Your task to perform on an android device: find which apps use the phone's location Image 0: 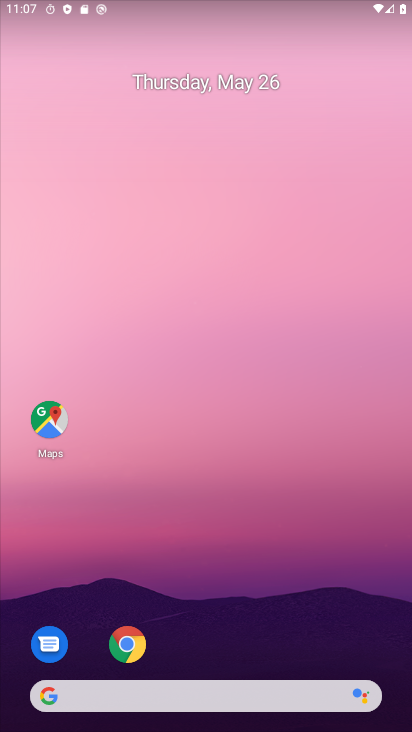
Step 0: drag from (119, 730) to (110, 40)
Your task to perform on an android device: find which apps use the phone's location Image 1: 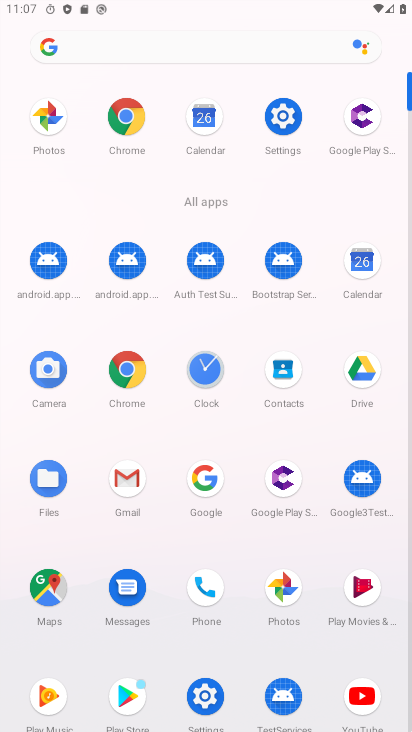
Step 1: click (291, 131)
Your task to perform on an android device: find which apps use the phone's location Image 2: 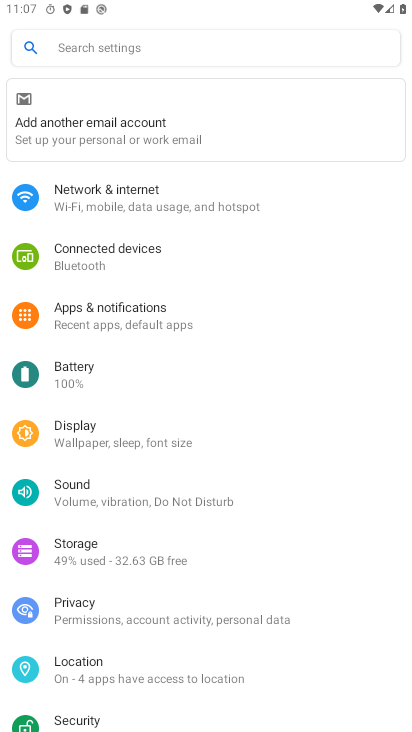
Step 2: click (109, 666)
Your task to perform on an android device: find which apps use the phone's location Image 3: 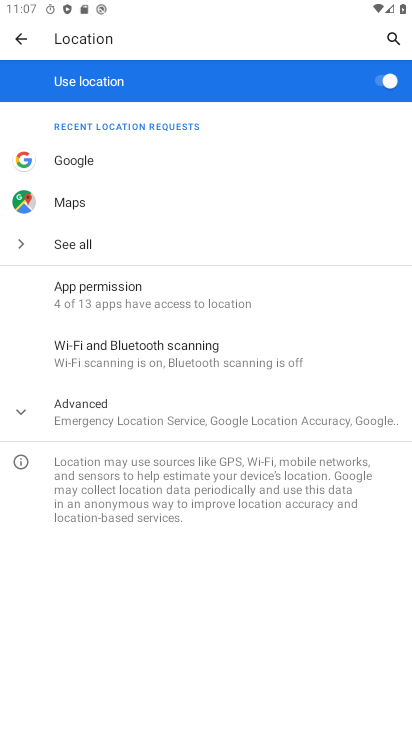
Step 3: click (117, 304)
Your task to perform on an android device: find which apps use the phone's location Image 4: 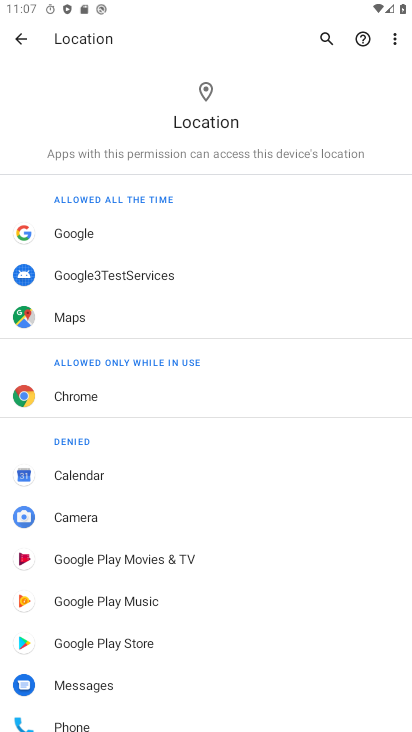
Step 4: task complete